Your task to perform on an android device: Open Google Chrome and open the bookmarks view Image 0: 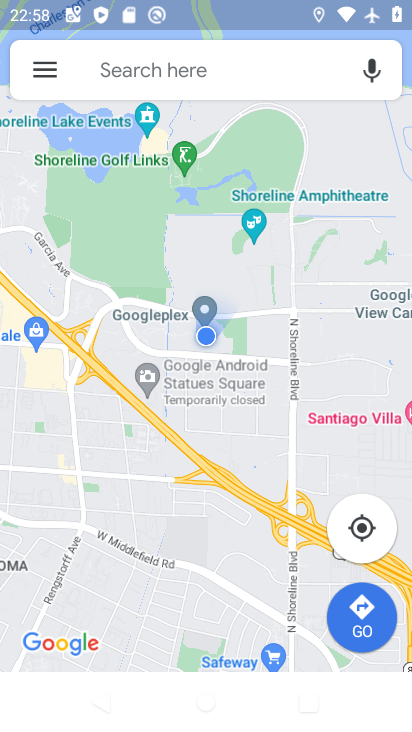
Step 0: click (271, 63)
Your task to perform on an android device: Open Google Chrome and open the bookmarks view Image 1: 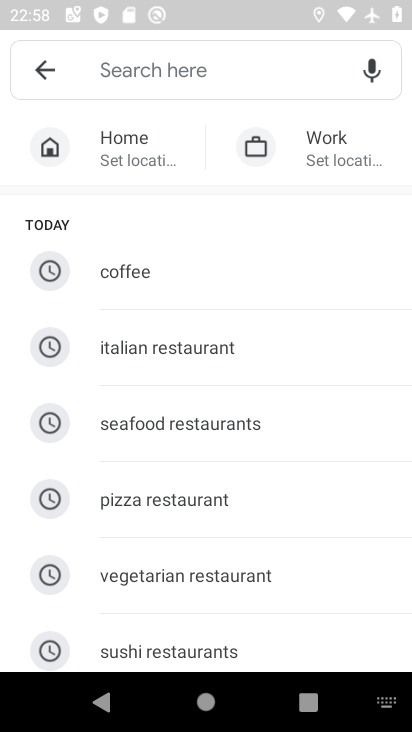
Step 1: press home button
Your task to perform on an android device: Open Google Chrome and open the bookmarks view Image 2: 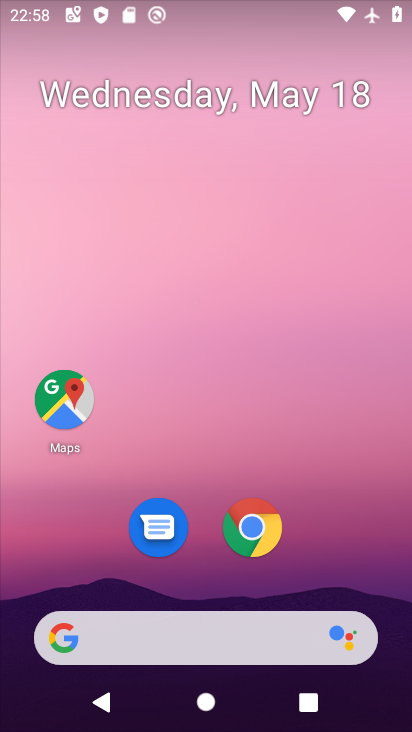
Step 2: click (259, 540)
Your task to perform on an android device: Open Google Chrome and open the bookmarks view Image 3: 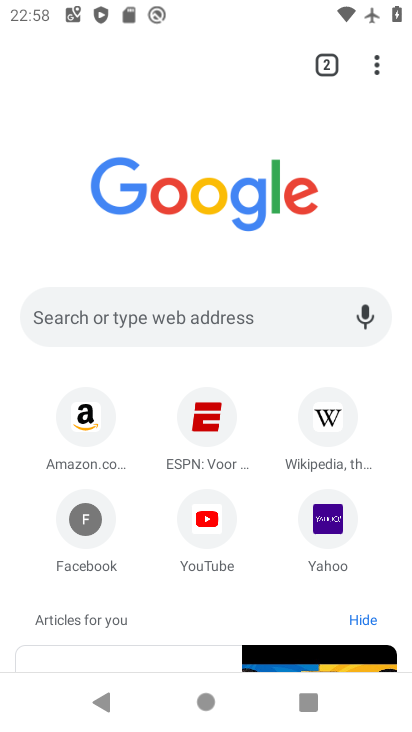
Step 3: click (387, 75)
Your task to perform on an android device: Open Google Chrome and open the bookmarks view Image 4: 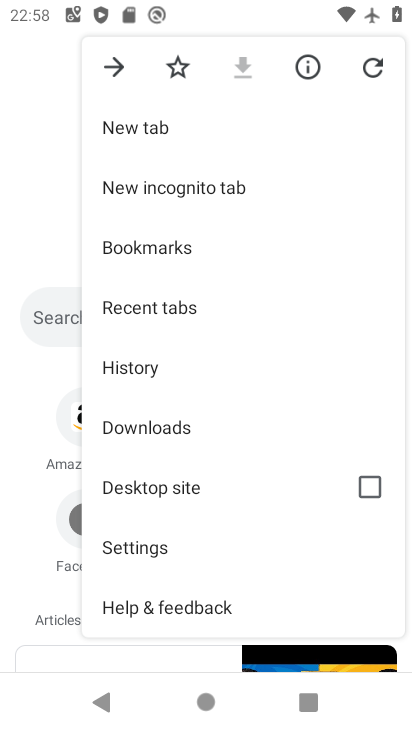
Step 4: click (238, 262)
Your task to perform on an android device: Open Google Chrome and open the bookmarks view Image 5: 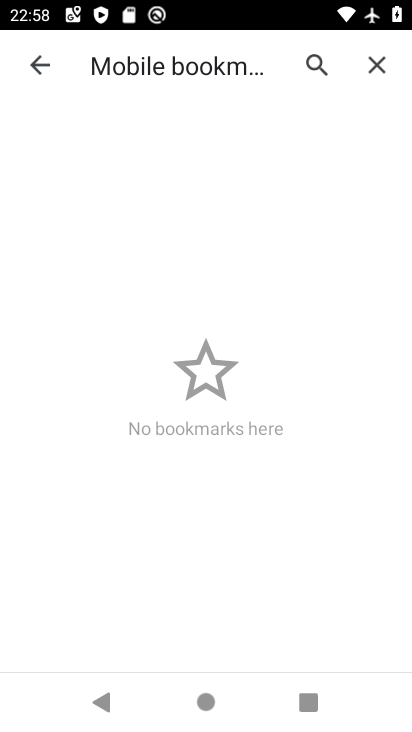
Step 5: task complete